Your task to perform on an android device: Search for vegetarian restaurants on Maps Image 0: 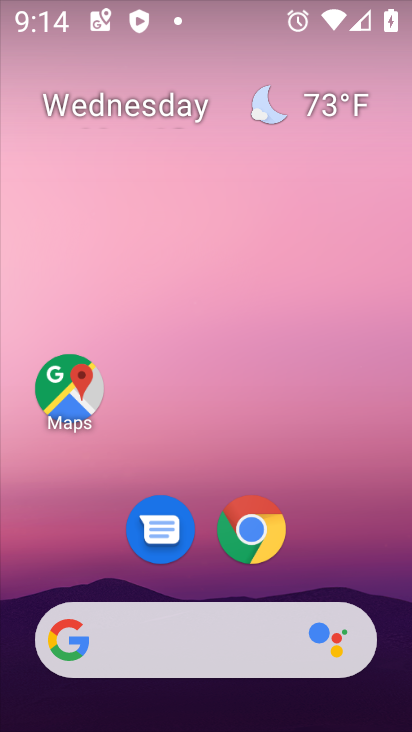
Step 0: drag from (383, 563) to (367, 234)
Your task to perform on an android device: Search for vegetarian restaurants on Maps Image 1: 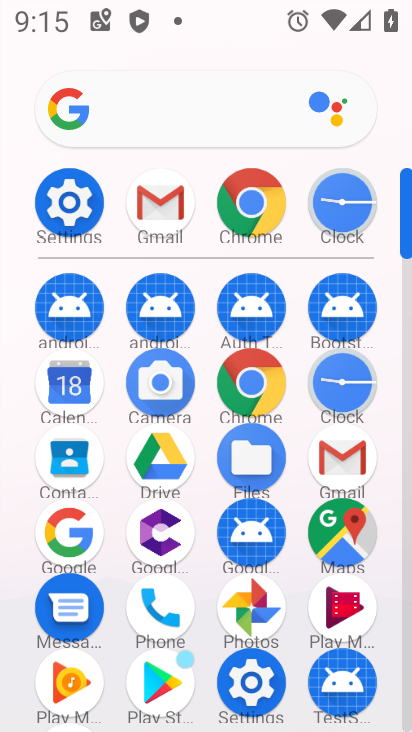
Step 1: click (359, 543)
Your task to perform on an android device: Search for vegetarian restaurants on Maps Image 2: 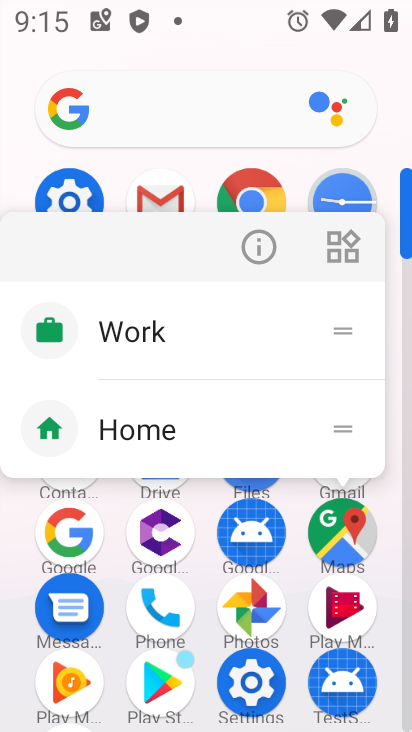
Step 2: click (357, 530)
Your task to perform on an android device: Search for vegetarian restaurants on Maps Image 3: 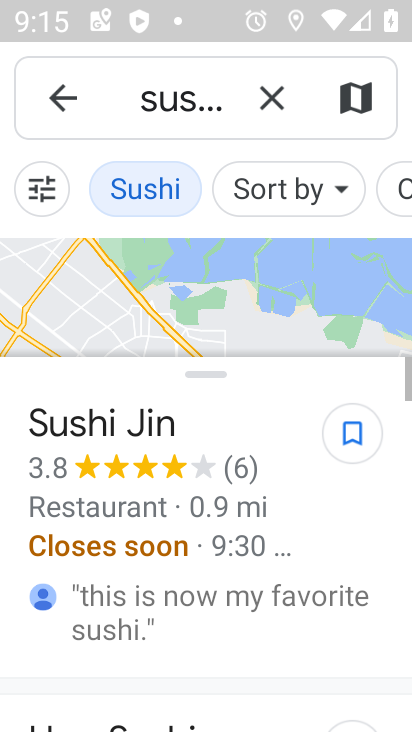
Step 3: click (271, 95)
Your task to perform on an android device: Search for vegetarian restaurants on Maps Image 4: 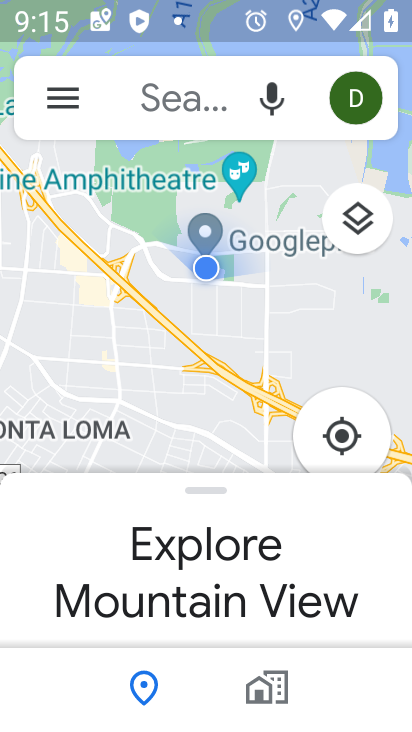
Step 4: click (185, 91)
Your task to perform on an android device: Search for vegetarian restaurants on Maps Image 5: 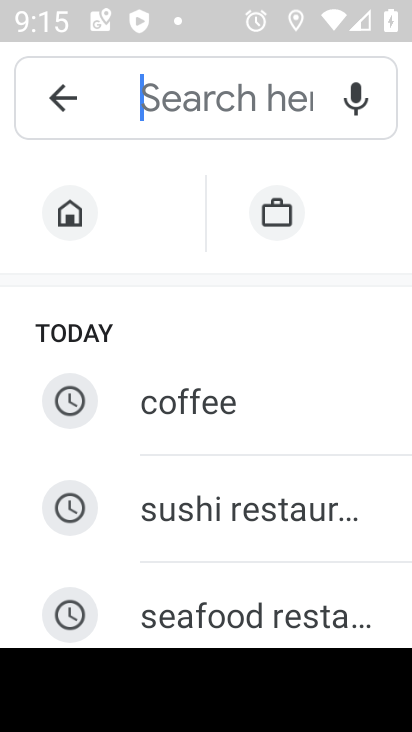
Step 5: type "vefetrain"
Your task to perform on an android device: Search for vegetarian restaurants on Maps Image 6: 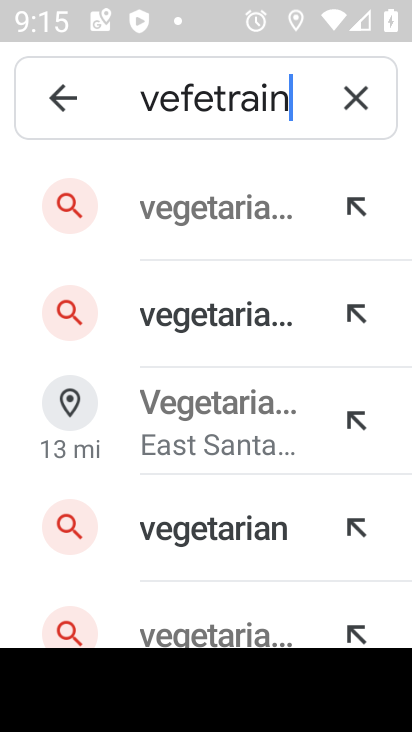
Step 6: click (242, 207)
Your task to perform on an android device: Search for vegetarian restaurants on Maps Image 7: 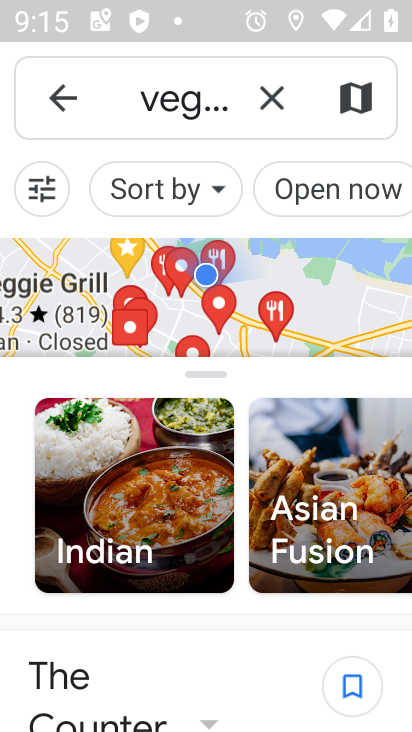
Step 7: task complete